Your task to perform on an android device: Open the stopwatch Image 0: 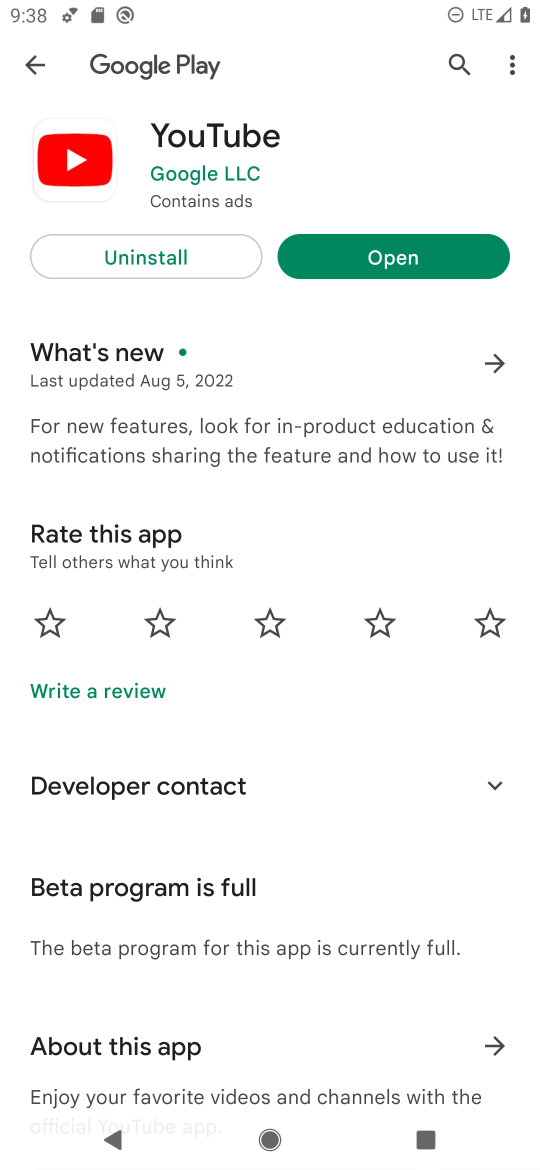
Step 0: press home button
Your task to perform on an android device: Open the stopwatch Image 1: 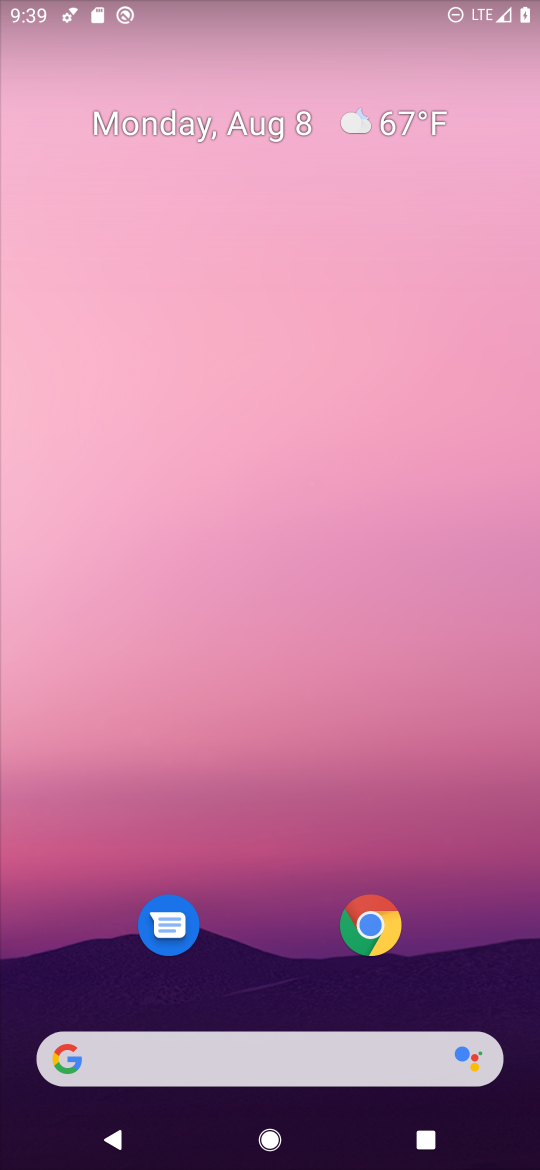
Step 1: drag from (323, 947) to (399, 138)
Your task to perform on an android device: Open the stopwatch Image 2: 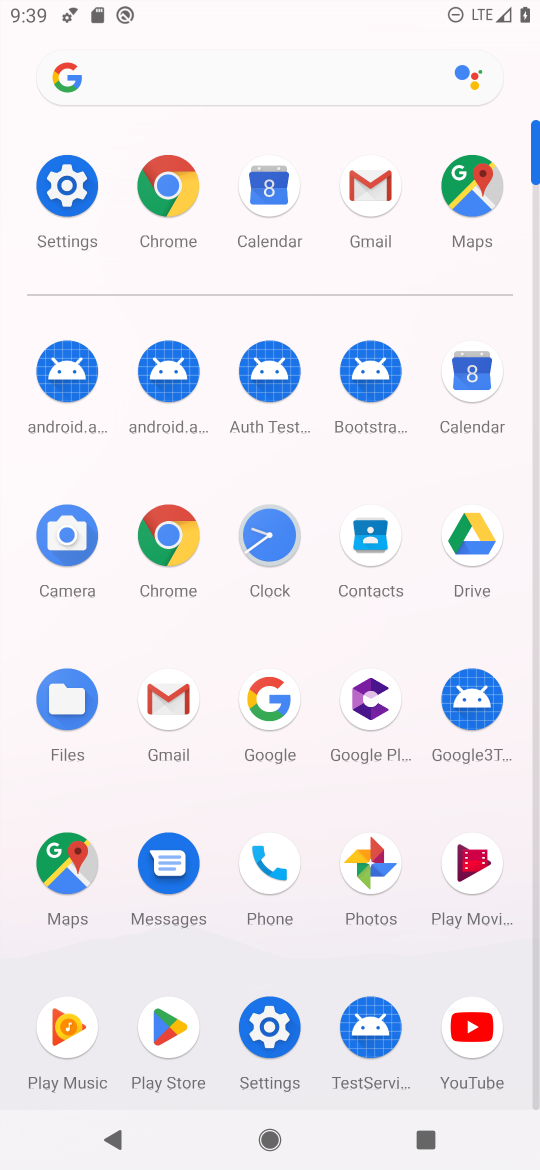
Step 2: click (259, 536)
Your task to perform on an android device: Open the stopwatch Image 3: 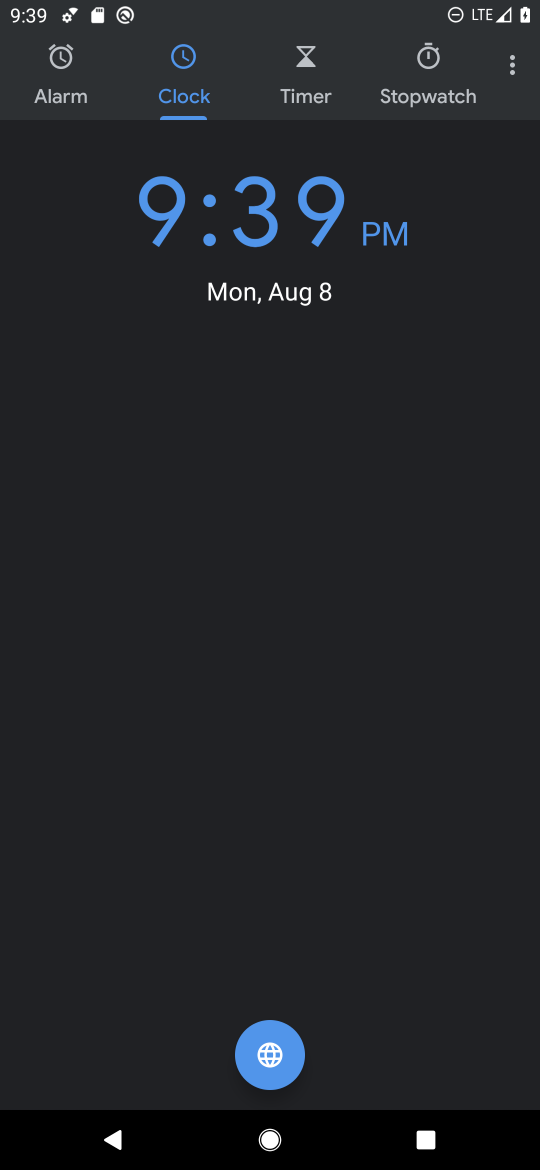
Step 3: click (413, 61)
Your task to perform on an android device: Open the stopwatch Image 4: 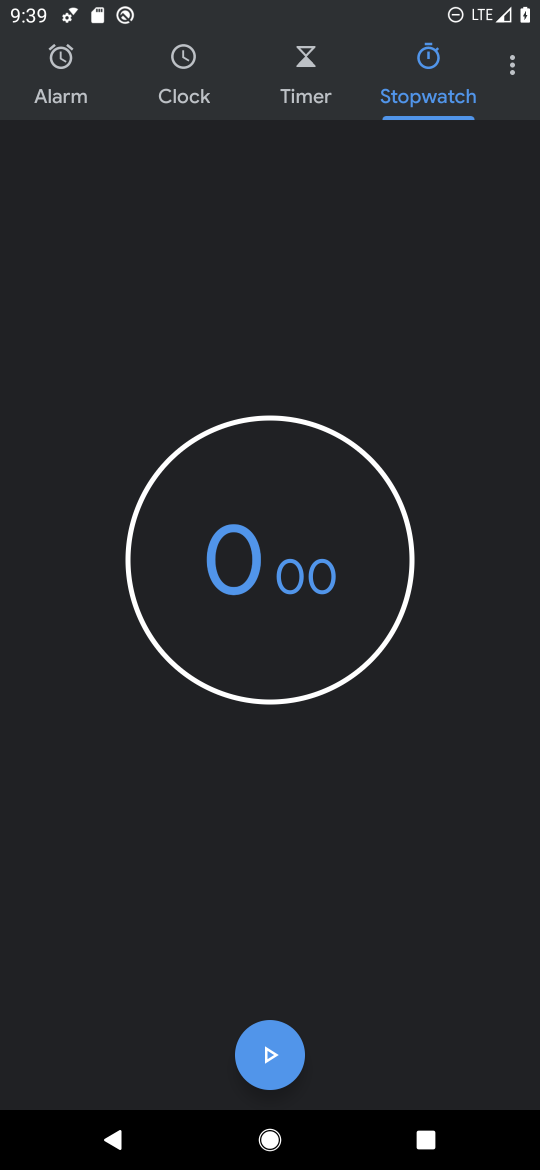
Step 4: task complete